Your task to perform on an android device: Is it going to rain this weekend? Image 0: 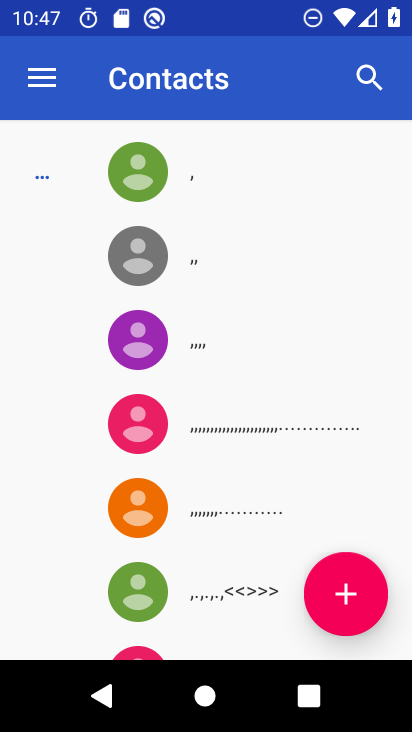
Step 0: press home button
Your task to perform on an android device: Is it going to rain this weekend? Image 1: 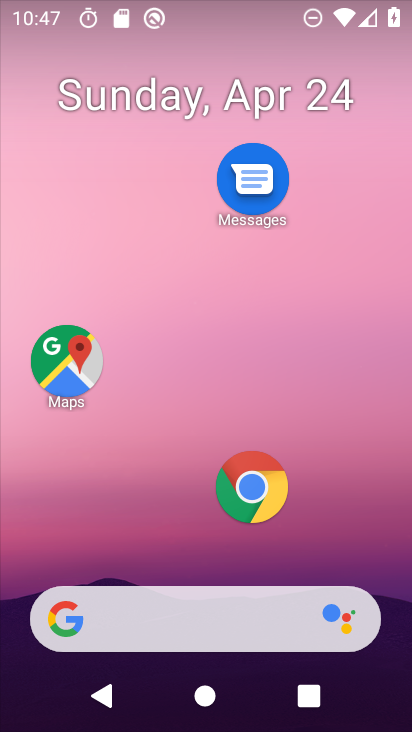
Step 1: click (157, 616)
Your task to perform on an android device: Is it going to rain this weekend? Image 2: 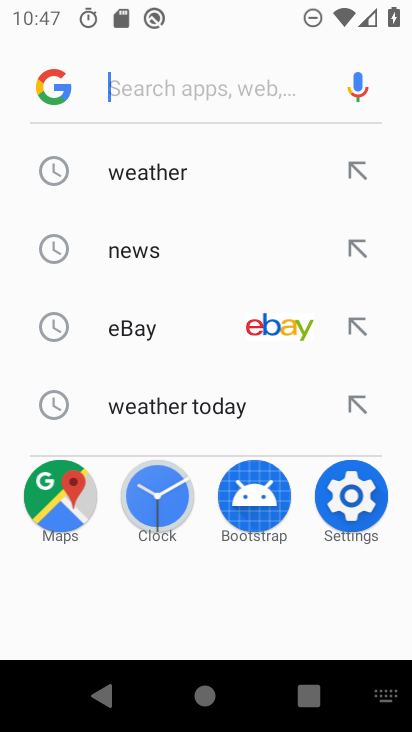
Step 2: click (175, 176)
Your task to perform on an android device: Is it going to rain this weekend? Image 3: 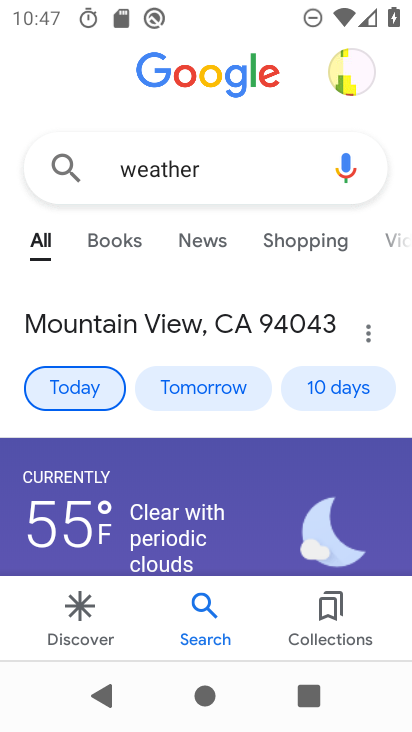
Step 3: task complete